Your task to perform on an android device: toggle airplane mode Image 0: 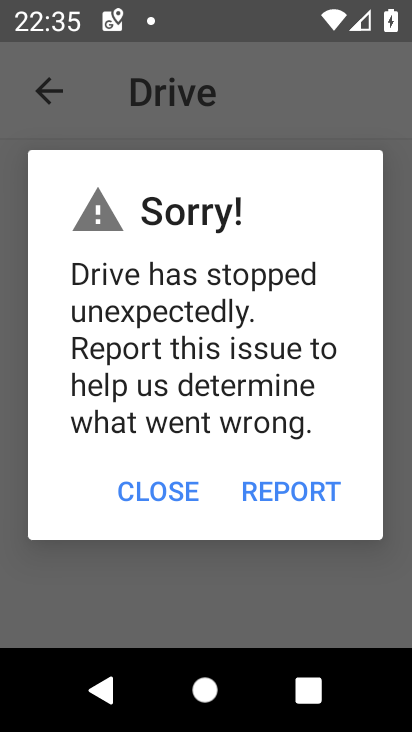
Step 0: press home button
Your task to perform on an android device: toggle airplane mode Image 1: 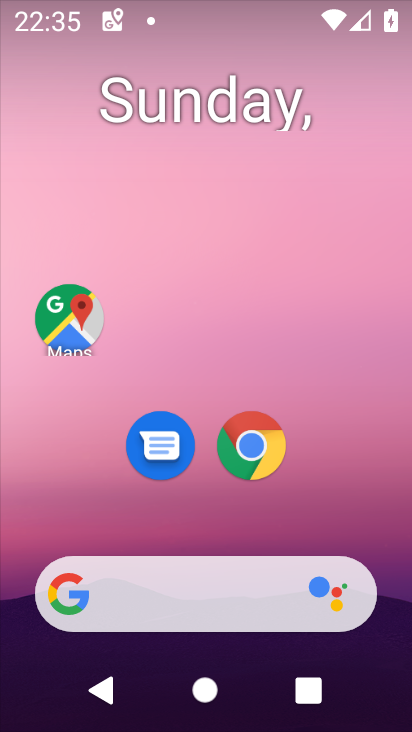
Step 1: drag from (260, 5) to (170, 632)
Your task to perform on an android device: toggle airplane mode Image 2: 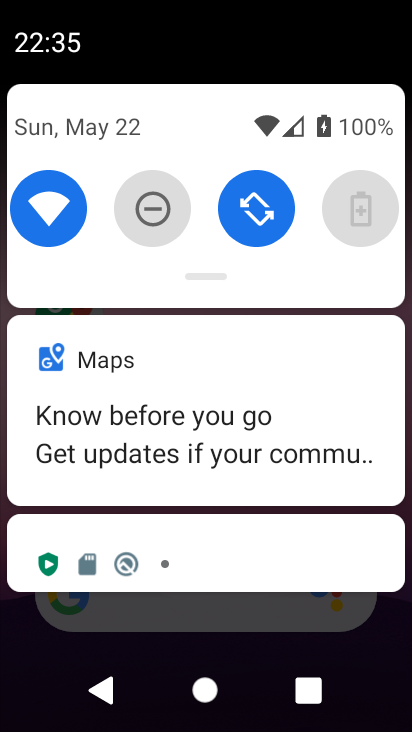
Step 2: drag from (299, 173) to (301, 724)
Your task to perform on an android device: toggle airplane mode Image 3: 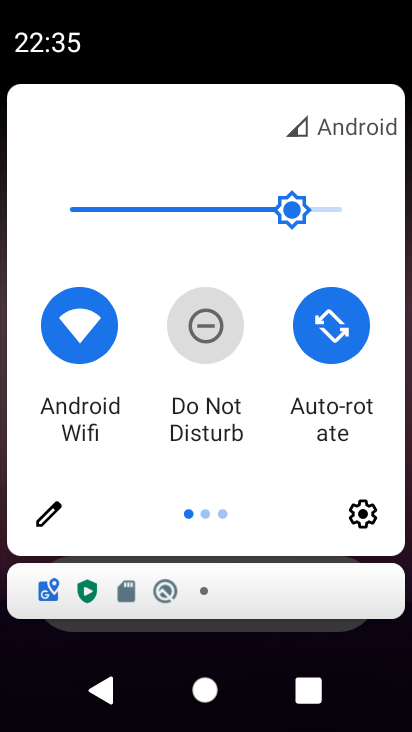
Step 3: drag from (353, 270) to (25, 219)
Your task to perform on an android device: toggle airplane mode Image 4: 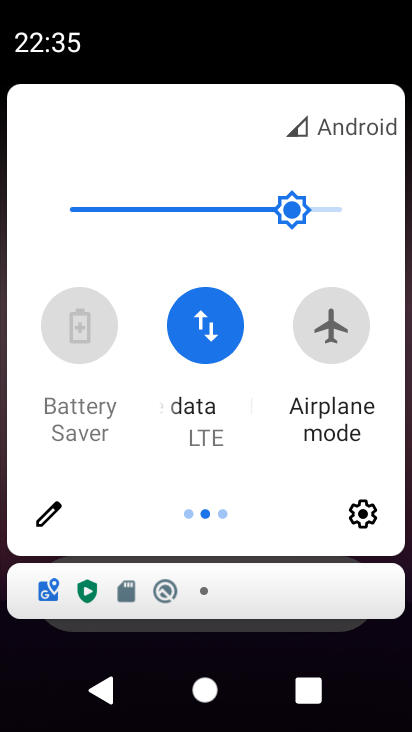
Step 4: click (327, 317)
Your task to perform on an android device: toggle airplane mode Image 5: 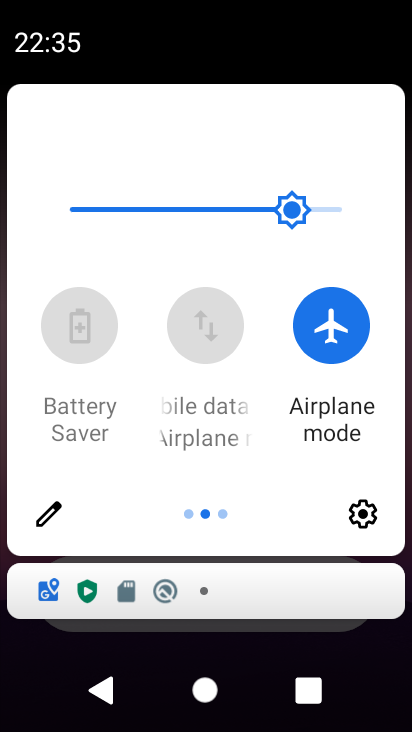
Step 5: task complete